Your task to perform on an android device: Go to accessibility settings Image 0: 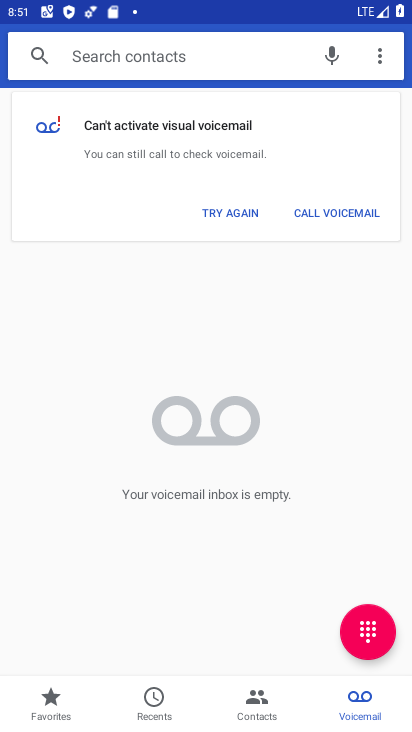
Step 0: press home button
Your task to perform on an android device: Go to accessibility settings Image 1: 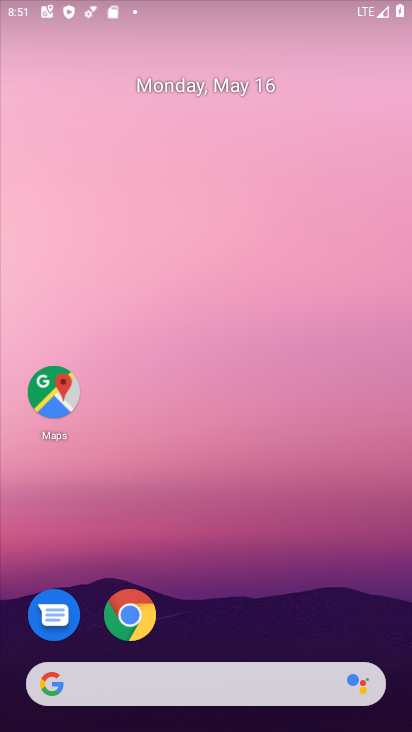
Step 1: drag from (250, 641) to (262, 167)
Your task to perform on an android device: Go to accessibility settings Image 2: 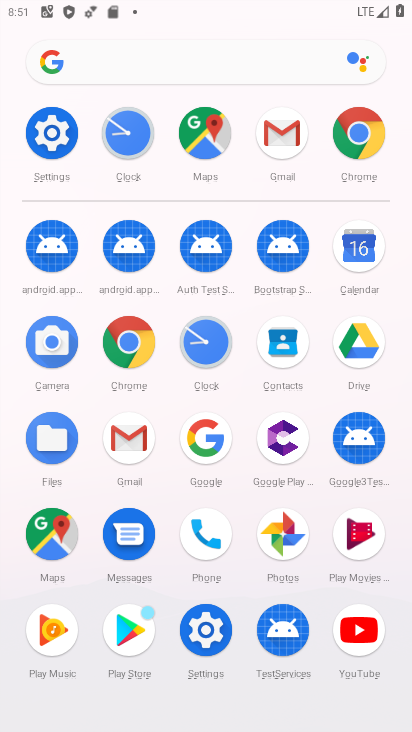
Step 2: click (49, 142)
Your task to perform on an android device: Go to accessibility settings Image 3: 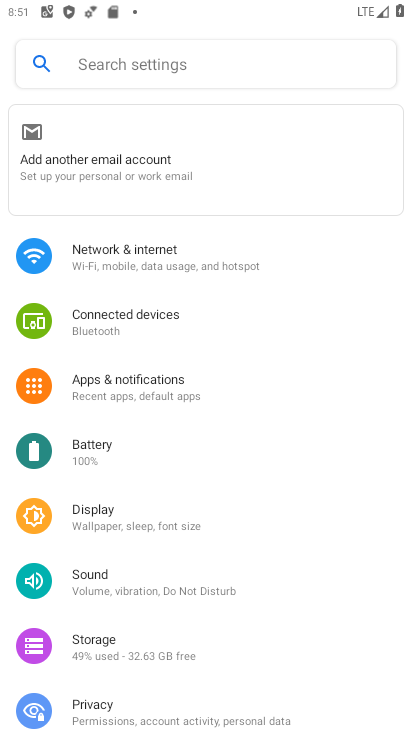
Step 3: drag from (108, 493) to (133, 111)
Your task to perform on an android device: Go to accessibility settings Image 4: 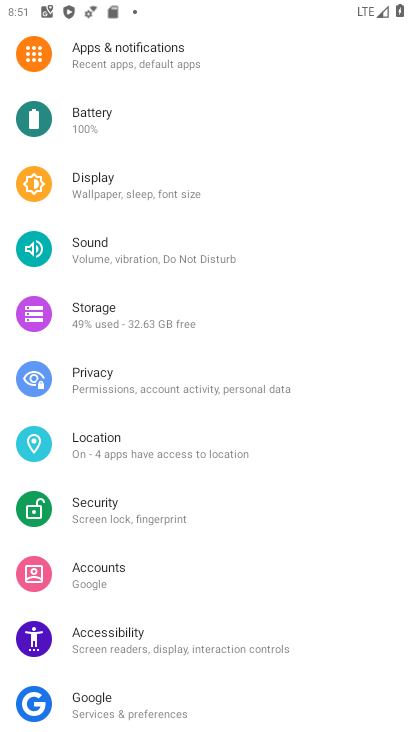
Step 4: click (188, 644)
Your task to perform on an android device: Go to accessibility settings Image 5: 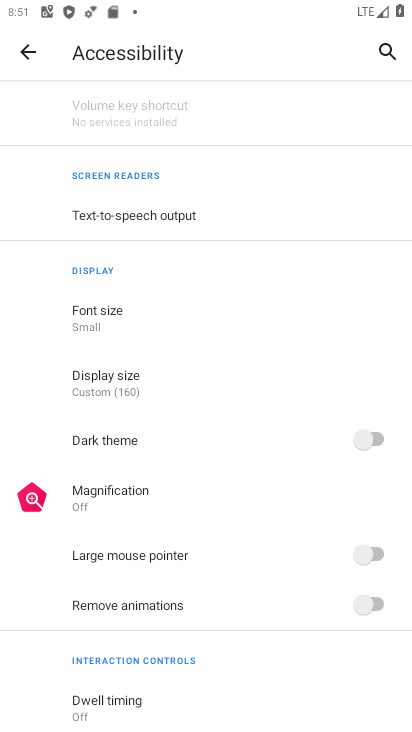
Step 5: task complete